Your task to perform on an android device: set an alarm Image 0: 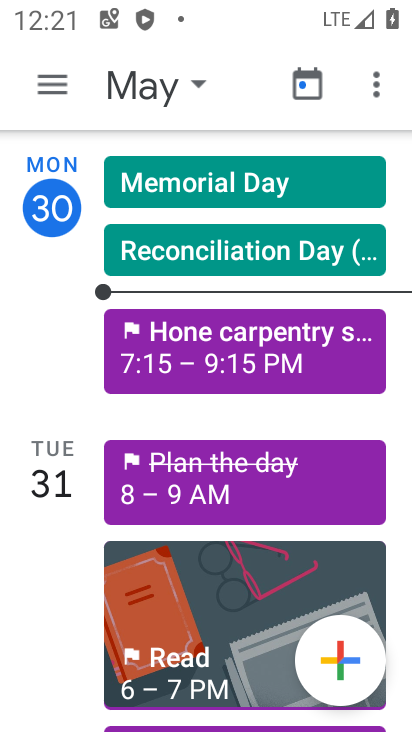
Step 0: press home button
Your task to perform on an android device: set an alarm Image 1: 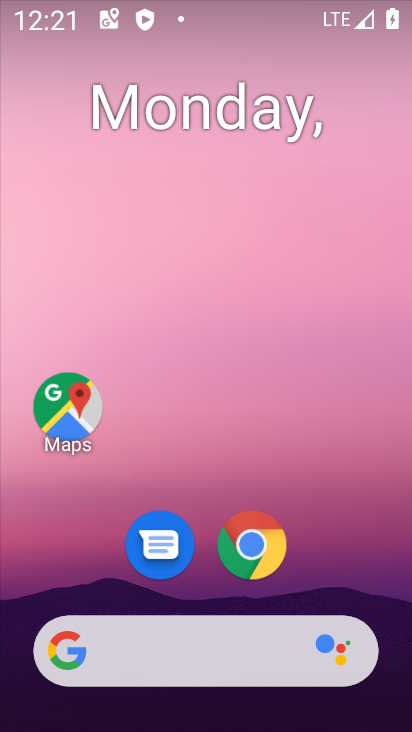
Step 1: drag from (353, 543) to (339, 196)
Your task to perform on an android device: set an alarm Image 2: 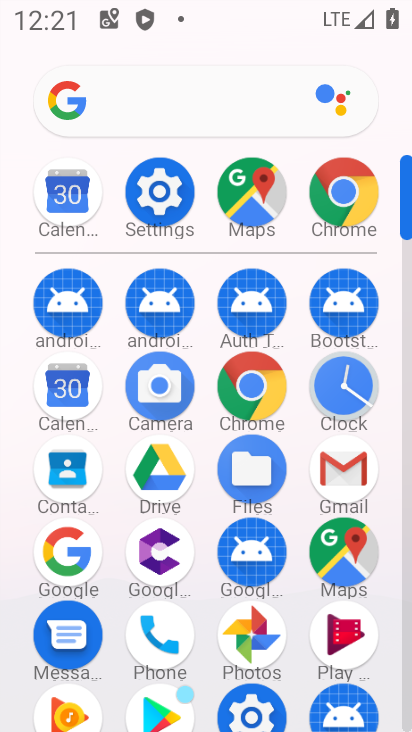
Step 2: click (354, 396)
Your task to perform on an android device: set an alarm Image 3: 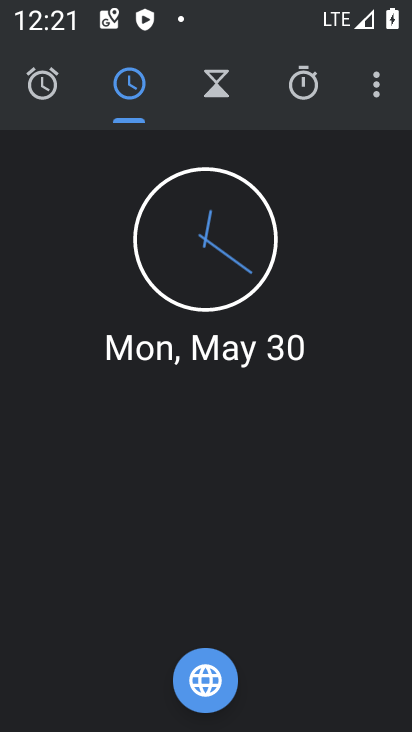
Step 3: click (39, 78)
Your task to perform on an android device: set an alarm Image 4: 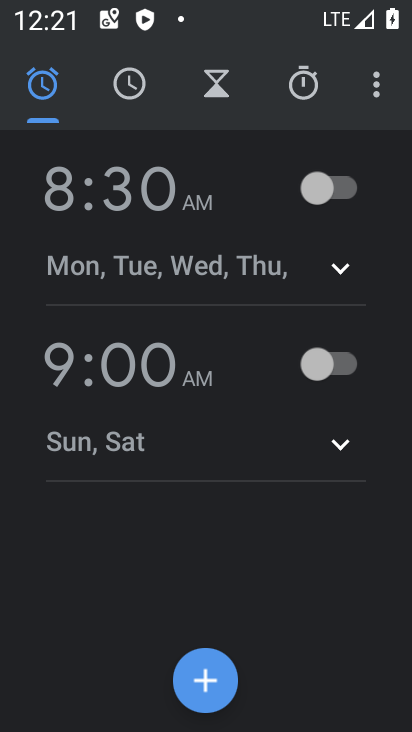
Step 4: click (208, 689)
Your task to perform on an android device: set an alarm Image 5: 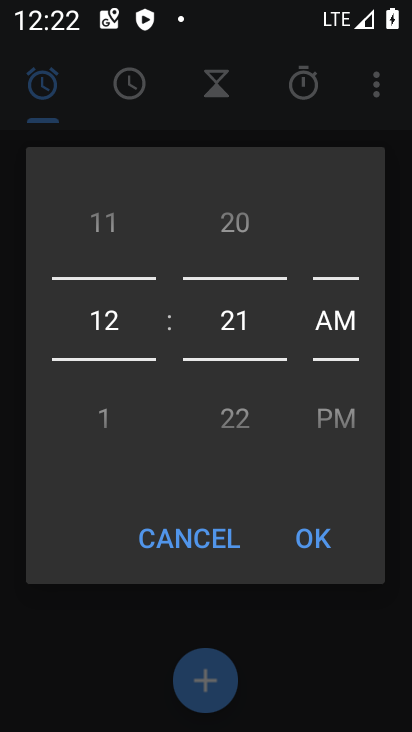
Step 5: click (311, 542)
Your task to perform on an android device: set an alarm Image 6: 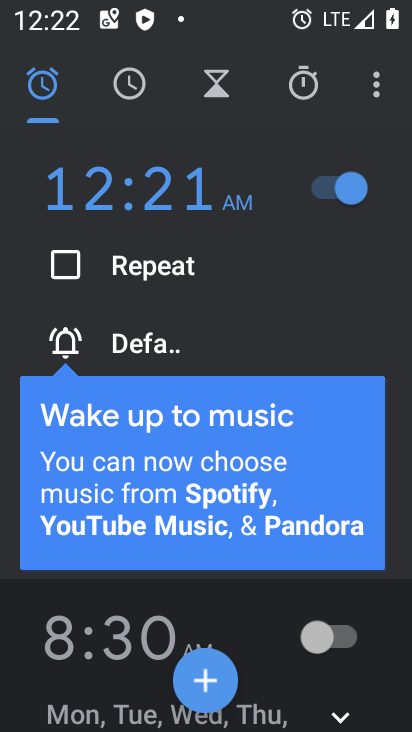
Step 6: task complete